Your task to perform on an android device: check google app version Image 0: 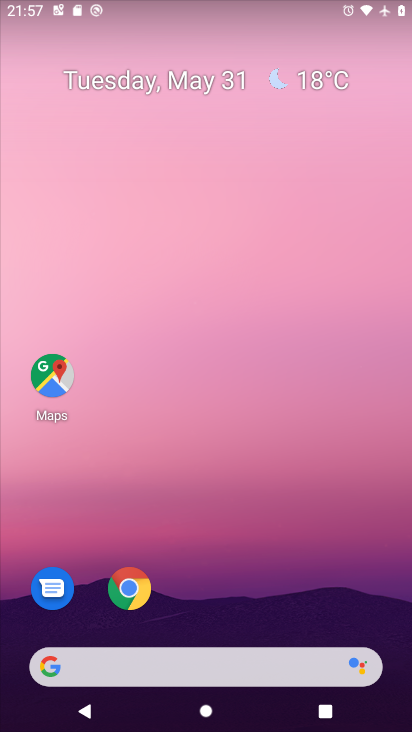
Step 0: drag from (166, 653) to (249, 9)
Your task to perform on an android device: check google app version Image 1: 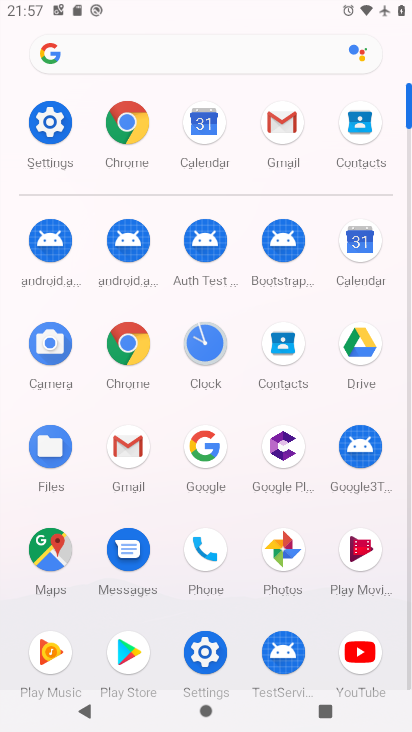
Step 1: drag from (209, 448) to (304, 538)
Your task to perform on an android device: check google app version Image 2: 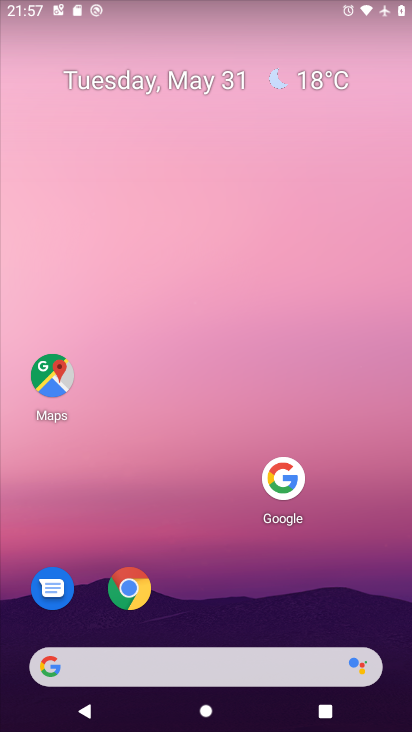
Step 2: click (292, 480)
Your task to perform on an android device: check google app version Image 3: 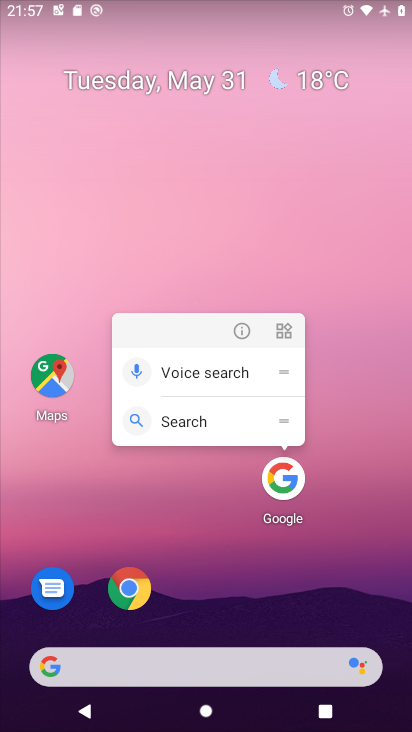
Step 3: click (235, 329)
Your task to perform on an android device: check google app version Image 4: 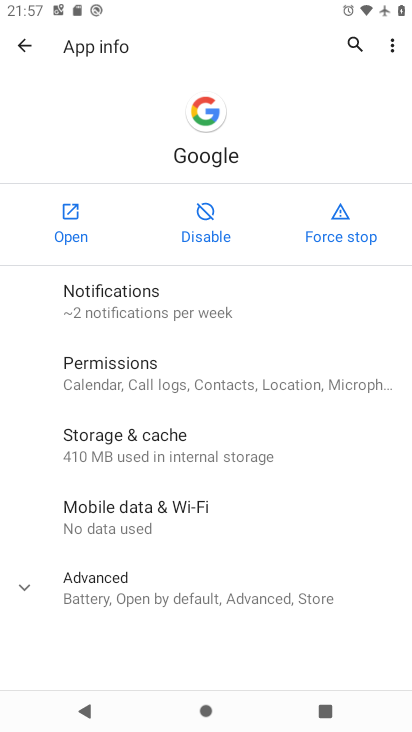
Step 4: click (121, 583)
Your task to perform on an android device: check google app version Image 5: 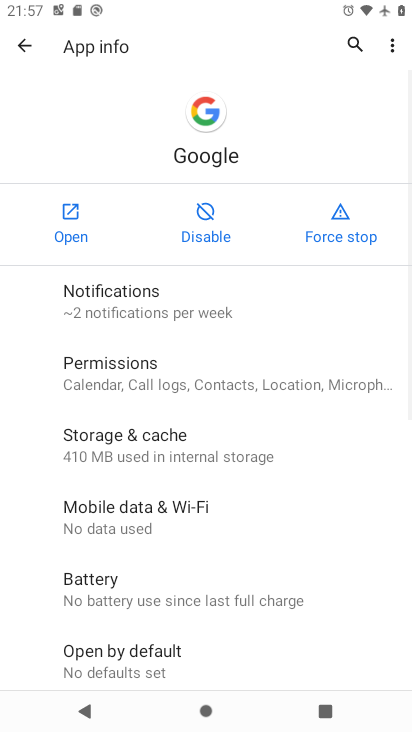
Step 5: task complete